Your task to perform on an android device: check out phone information Image 0: 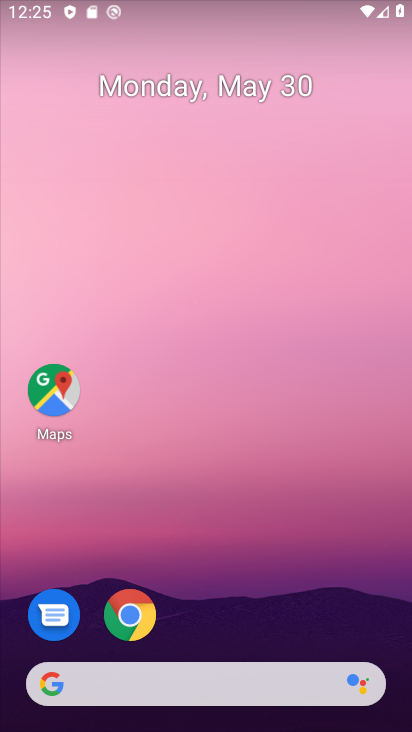
Step 0: drag from (270, 484) to (312, 47)
Your task to perform on an android device: check out phone information Image 1: 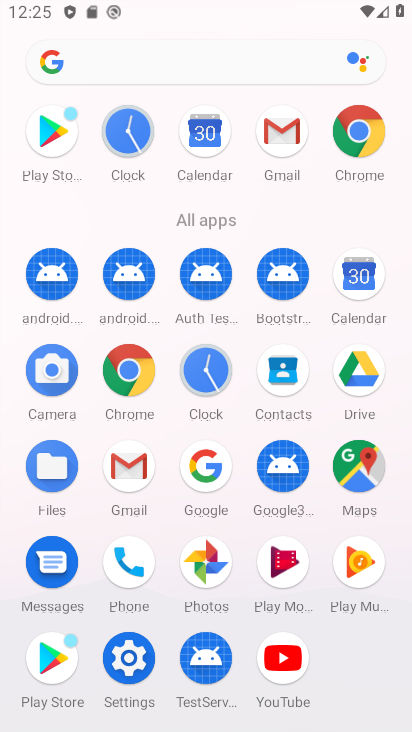
Step 1: click (122, 641)
Your task to perform on an android device: check out phone information Image 2: 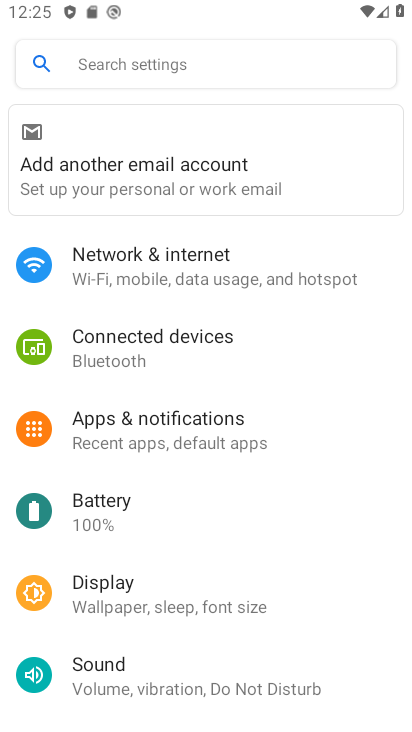
Step 2: drag from (152, 666) to (285, 79)
Your task to perform on an android device: check out phone information Image 3: 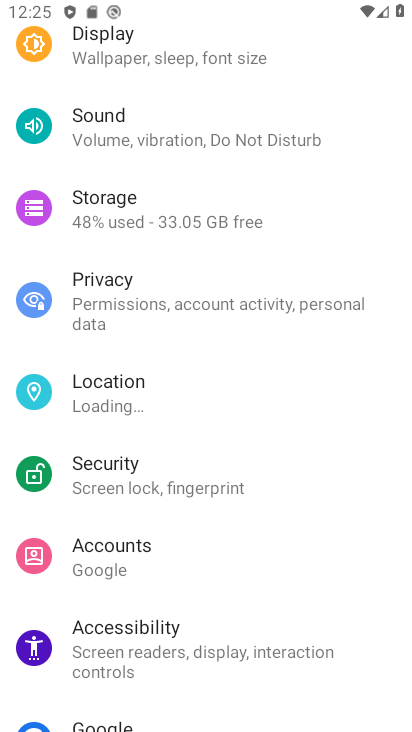
Step 3: drag from (191, 529) to (270, 107)
Your task to perform on an android device: check out phone information Image 4: 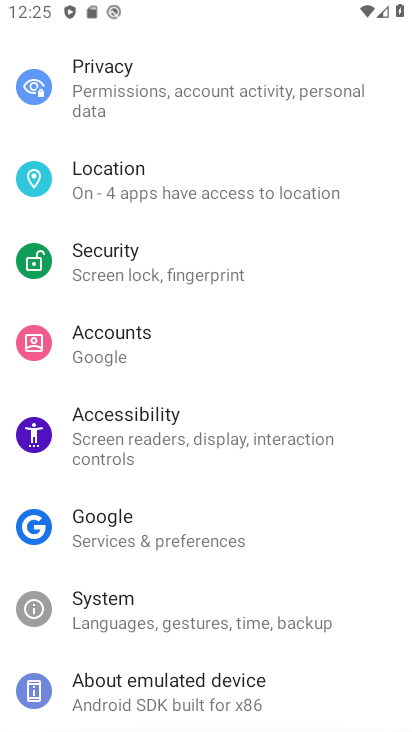
Step 4: drag from (202, 511) to (274, 9)
Your task to perform on an android device: check out phone information Image 5: 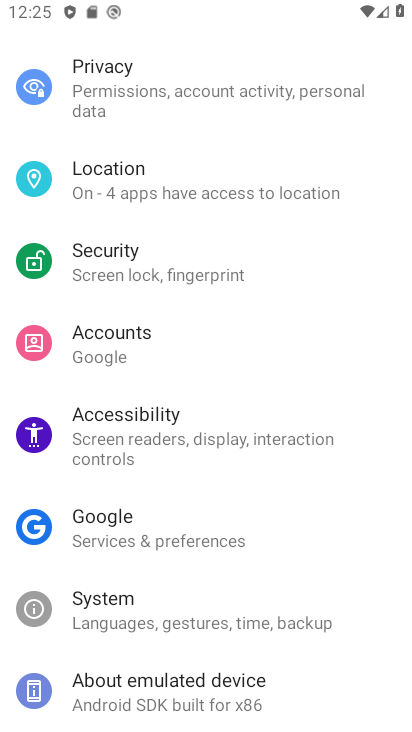
Step 5: click (178, 693)
Your task to perform on an android device: check out phone information Image 6: 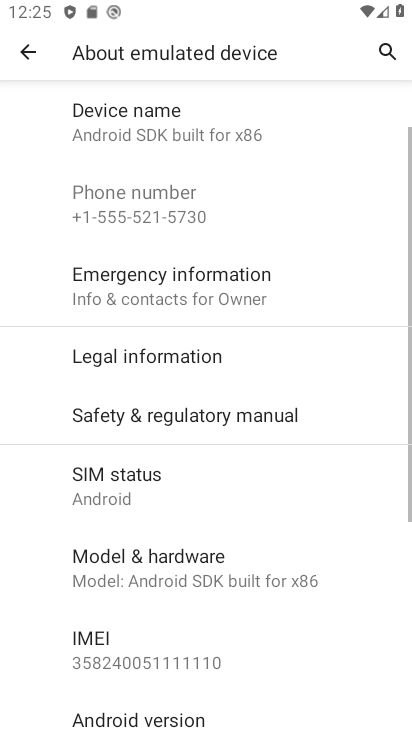
Step 6: task complete